Your task to perform on an android device: all mails in gmail Image 0: 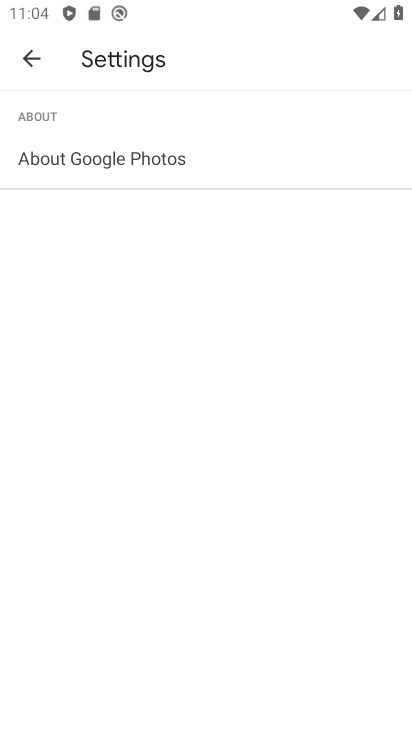
Step 0: press home button
Your task to perform on an android device: all mails in gmail Image 1: 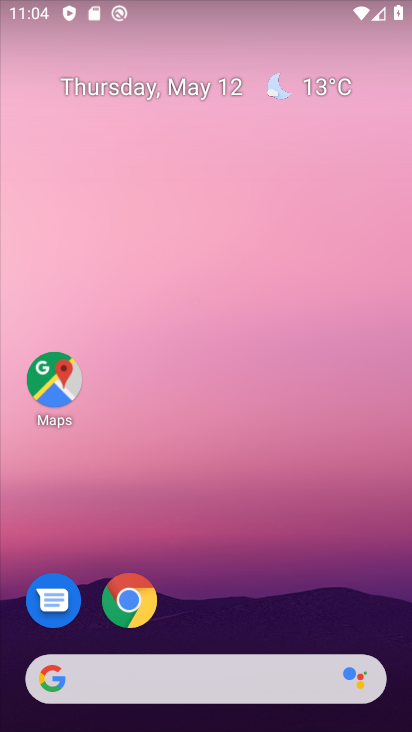
Step 1: drag from (383, 624) to (322, 67)
Your task to perform on an android device: all mails in gmail Image 2: 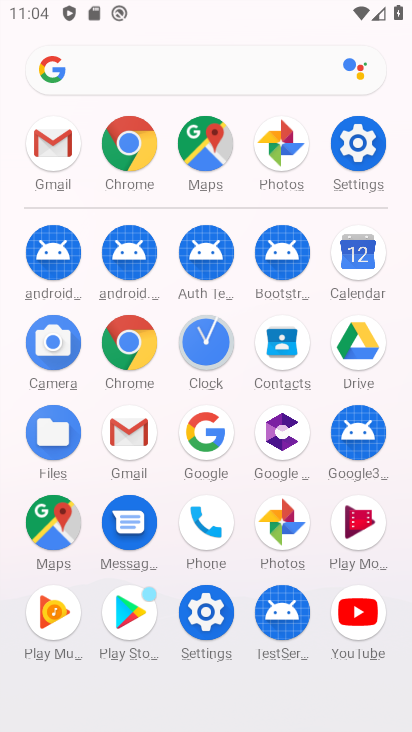
Step 2: click (132, 427)
Your task to perform on an android device: all mails in gmail Image 3: 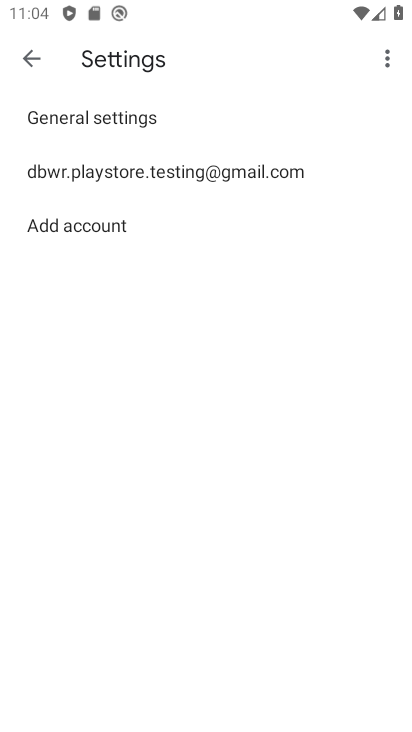
Step 3: press back button
Your task to perform on an android device: all mails in gmail Image 4: 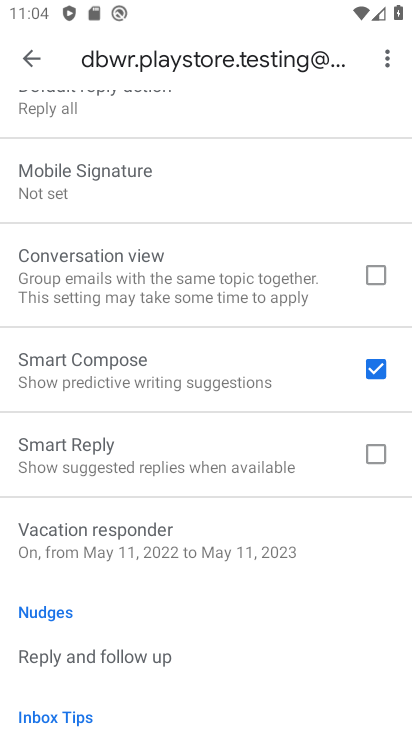
Step 4: press back button
Your task to perform on an android device: all mails in gmail Image 5: 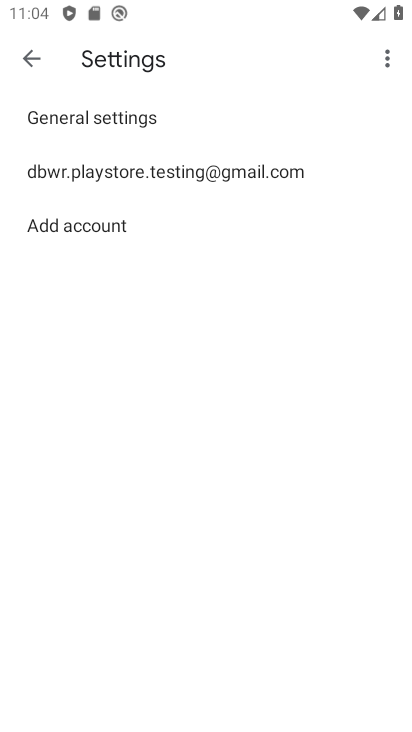
Step 5: press back button
Your task to perform on an android device: all mails in gmail Image 6: 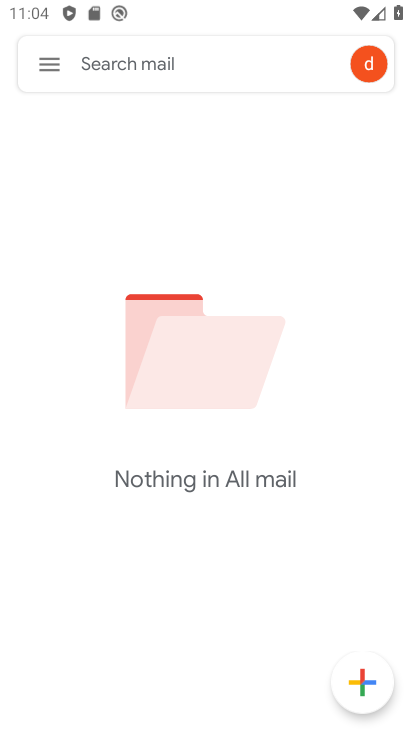
Step 6: click (42, 58)
Your task to perform on an android device: all mails in gmail Image 7: 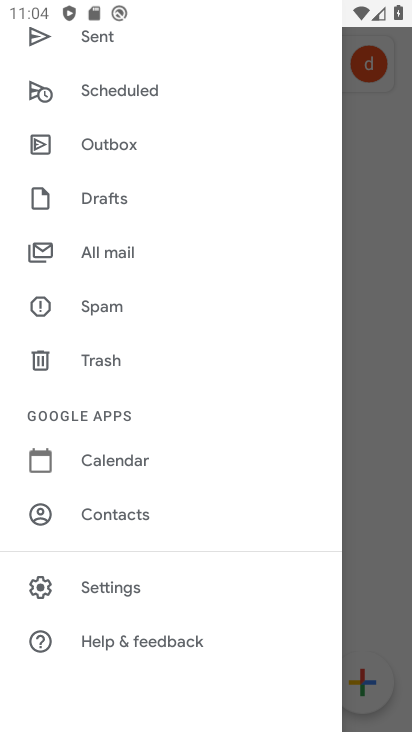
Step 7: click (109, 250)
Your task to perform on an android device: all mails in gmail Image 8: 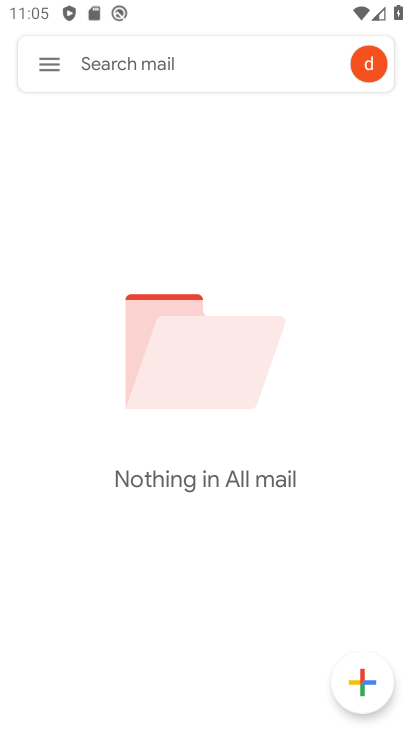
Step 8: task complete